Your task to perform on an android device: View the shopping cart on amazon. Image 0: 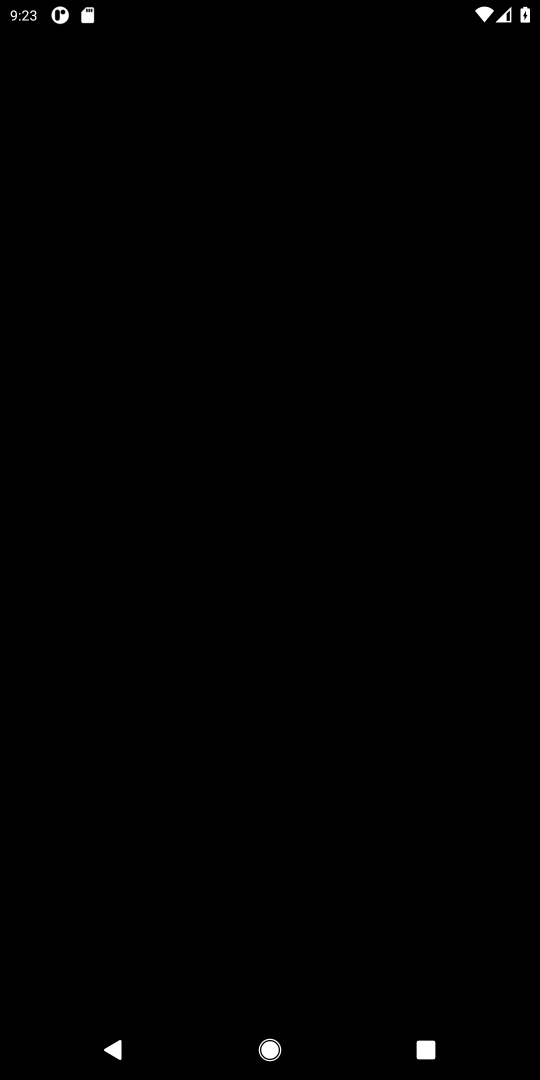
Step 0: press home button
Your task to perform on an android device: View the shopping cart on amazon. Image 1: 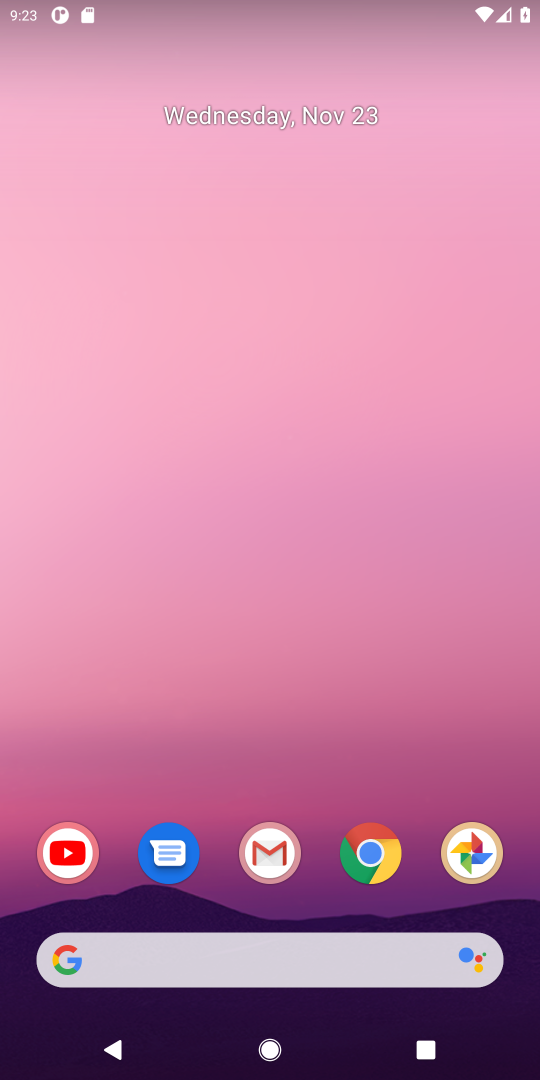
Step 1: click (374, 850)
Your task to perform on an android device: View the shopping cart on amazon. Image 2: 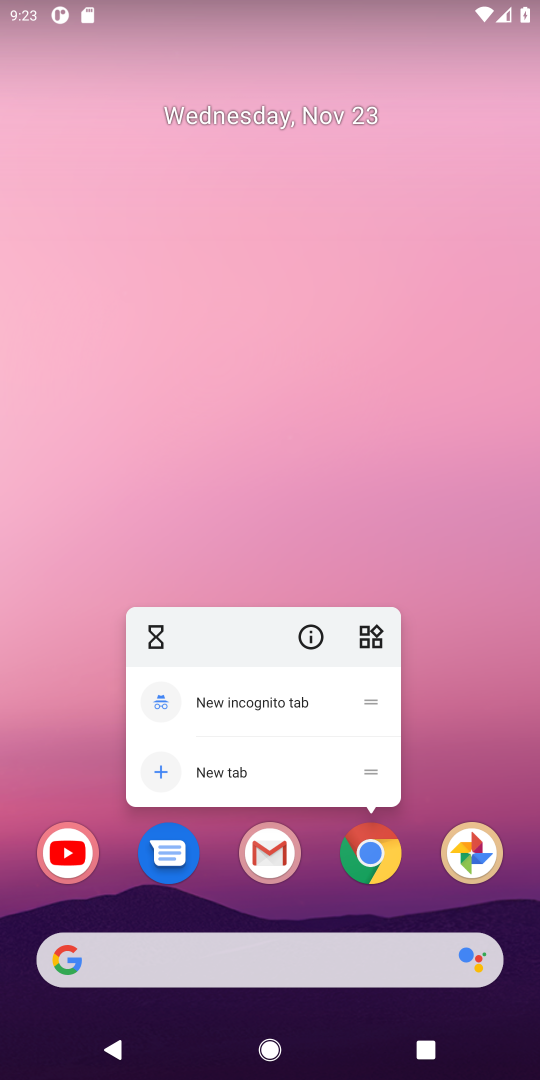
Step 2: click (374, 850)
Your task to perform on an android device: View the shopping cart on amazon. Image 3: 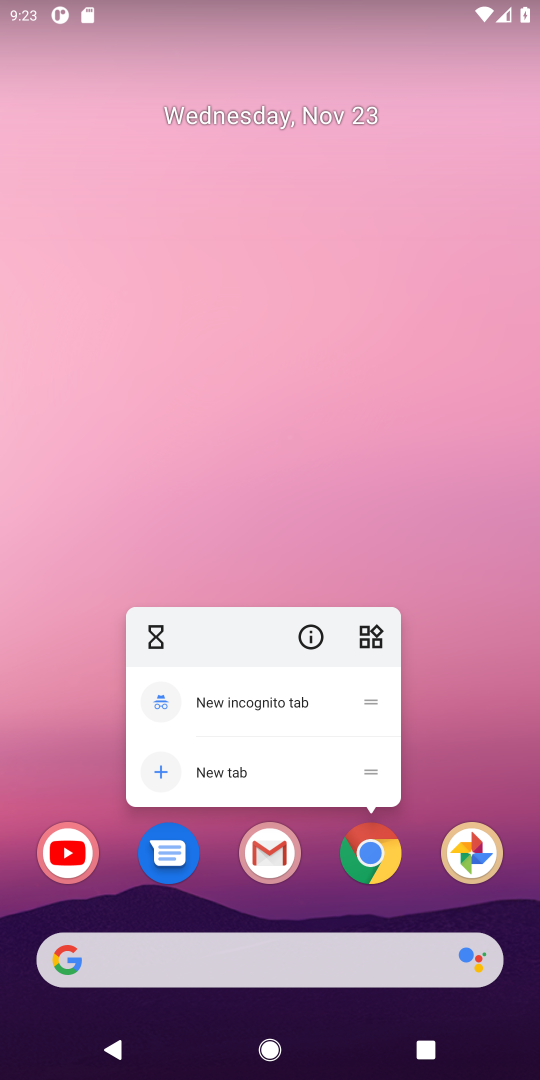
Step 3: click (374, 853)
Your task to perform on an android device: View the shopping cart on amazon. Image 4: 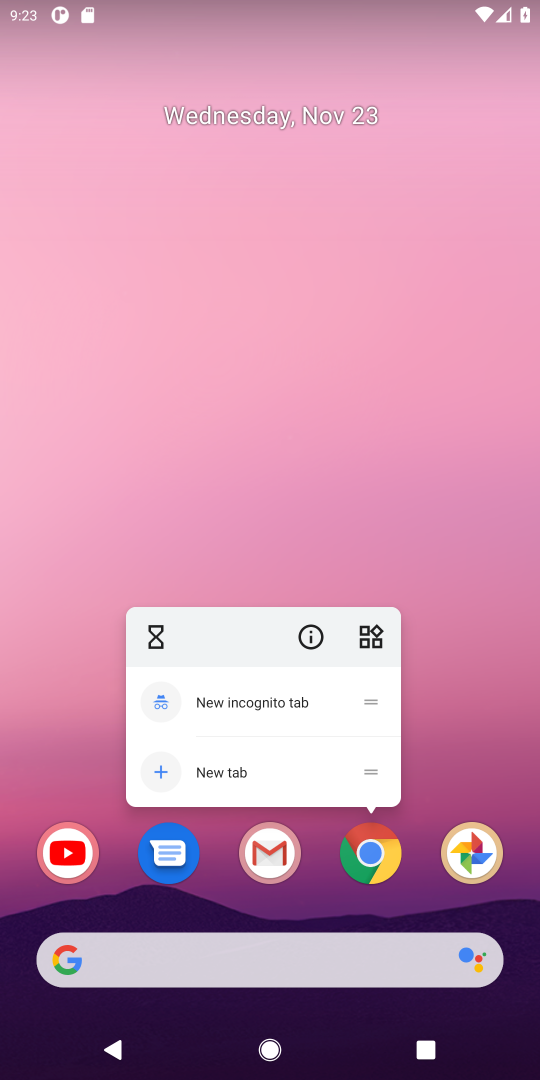
Step 4: click (370, 867)
Your task to perform on an android device: View the shopping cart on amazon. Image 5: 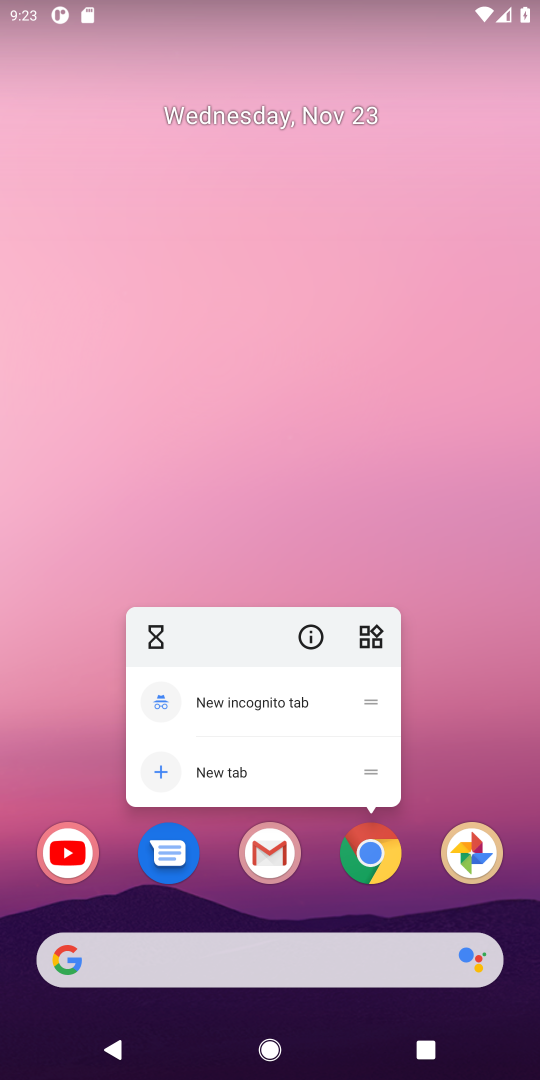
Step 5: click (471, 796)
Your task to perform on an android device: View the shopping cart on amazon. Image 6: 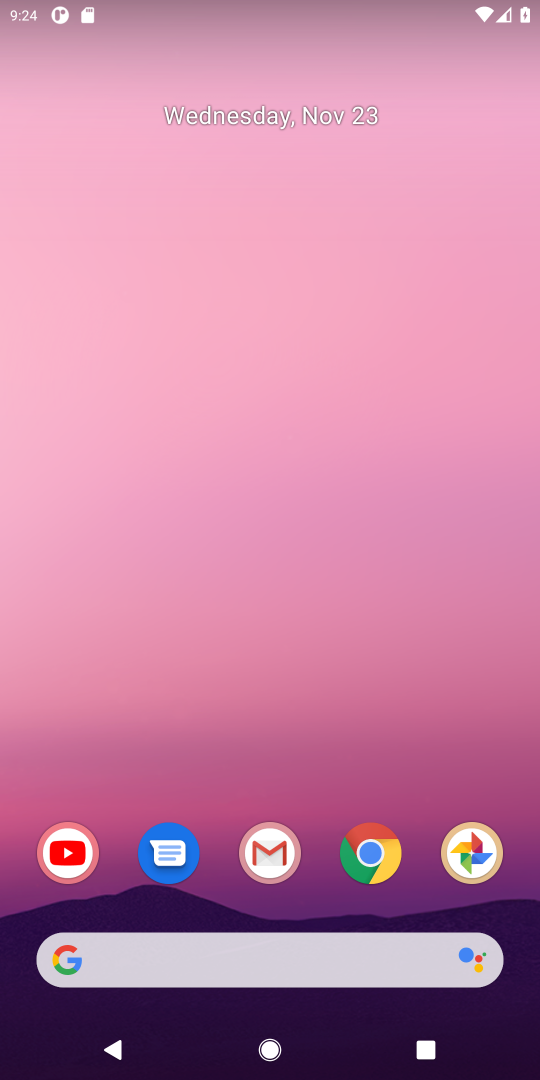
Step 6: click (373, 864)
Your task to perform on an android device: View the shopping cart on amazon. Image 7: 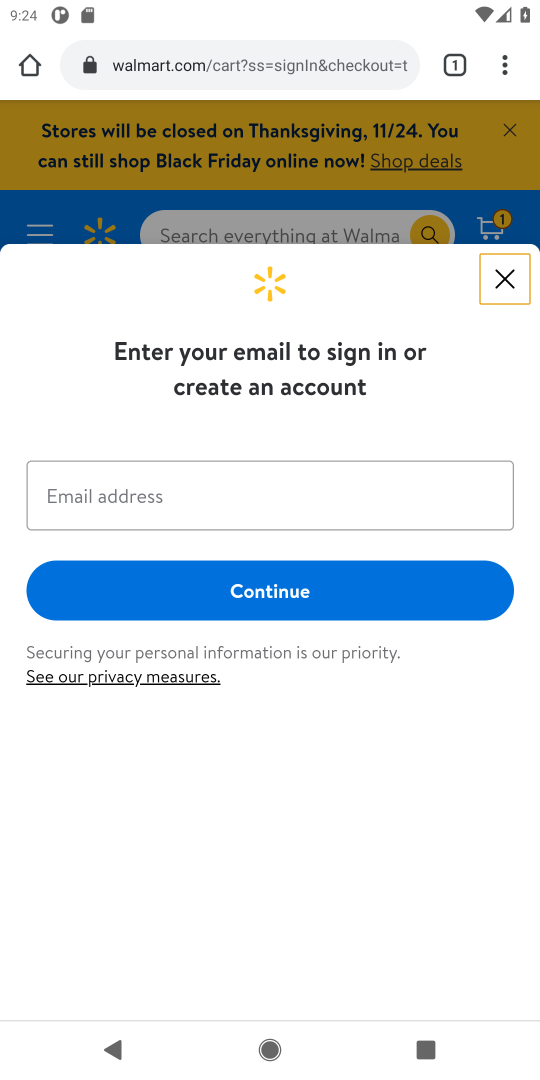
Step 7: click (187, 68)
Your task to perform on an android device: View the shopping cart on amazon. Image 8: 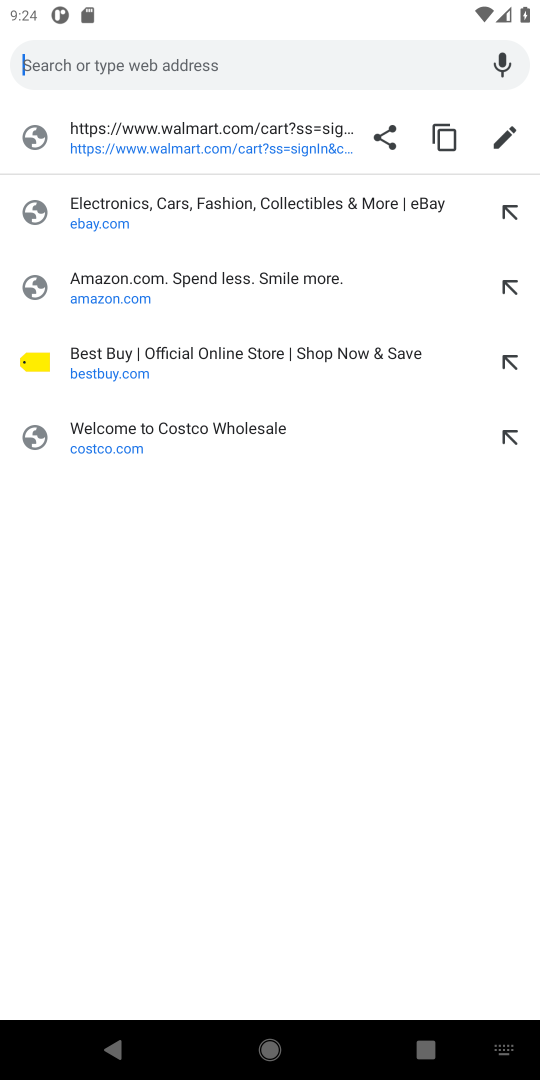
Step 8: click (96, 299)
Your task to perform on an android device: View the shopping cart on amazon. Image 9: 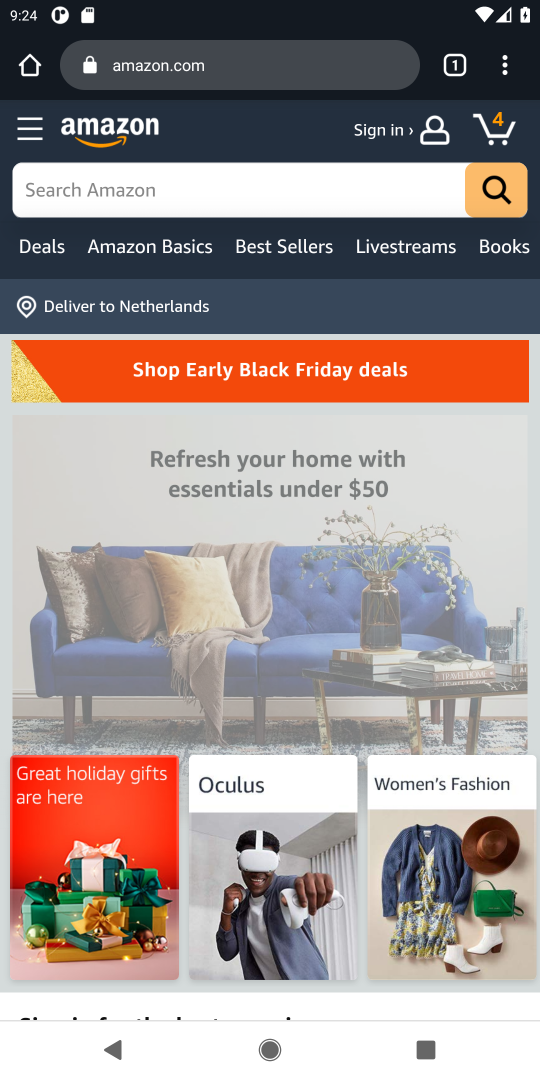
Step 9: click (495, 137)
Your task to perform on an android device: View the shopping cart on amazon. Image 10: 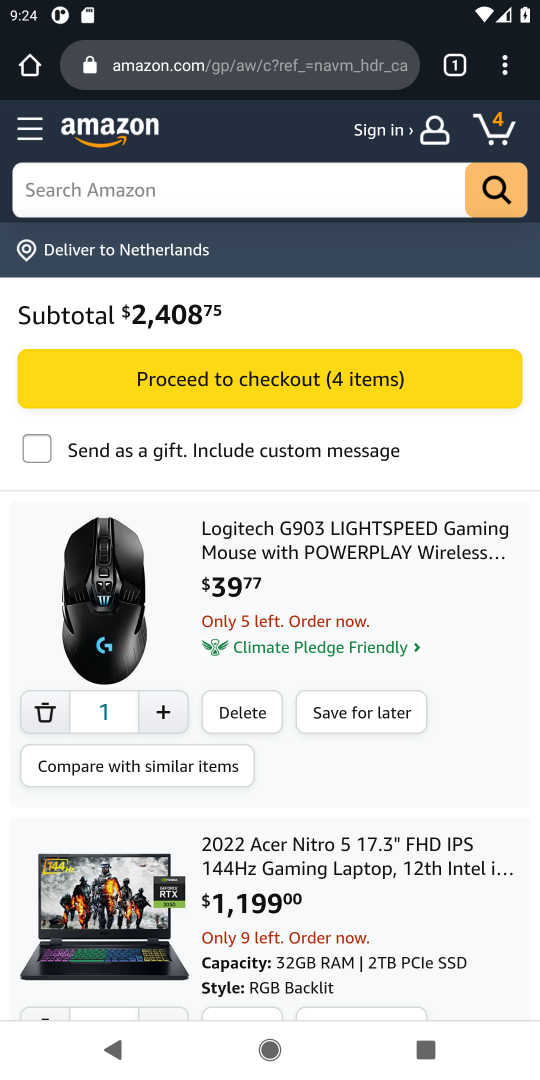
Step 10: task complete